Your task to perform on an android device: find which apps use the phone's location Image 0: 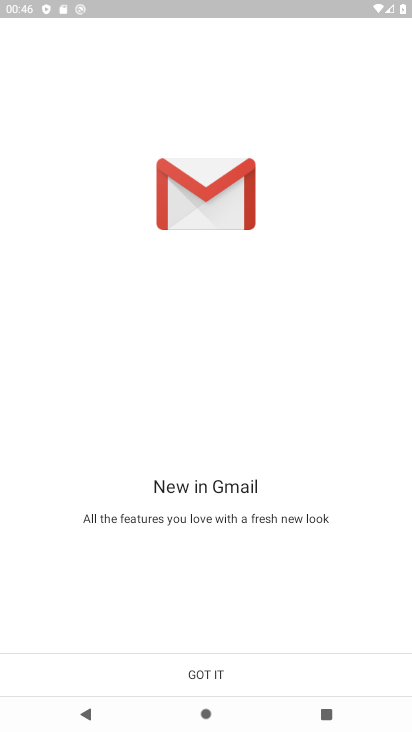
Step 0: press home button
Your task to perform on an android device: find which apps use the phone's location Image 1: 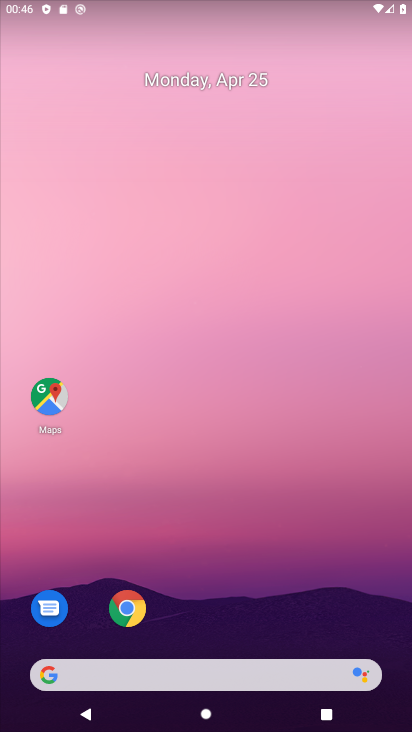
Step 1: drag from (253, 605) to (250, 141)
Your task to perform on an android device: find which apps use the phone's location Image 2: 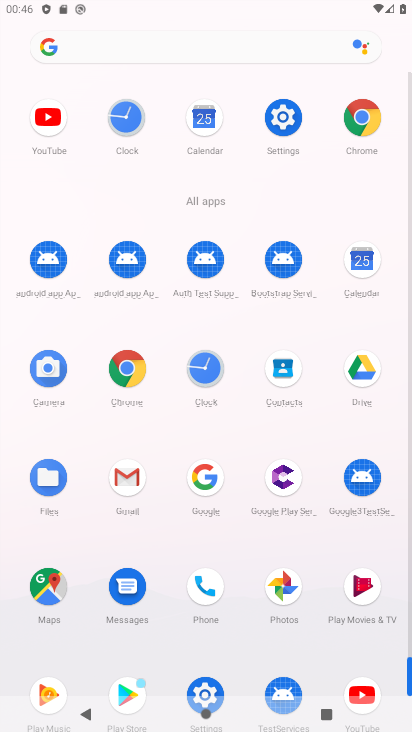
Step 2: click (284, 131)
Your task to perform on an android device: find which apps use the phone's location Image 3: 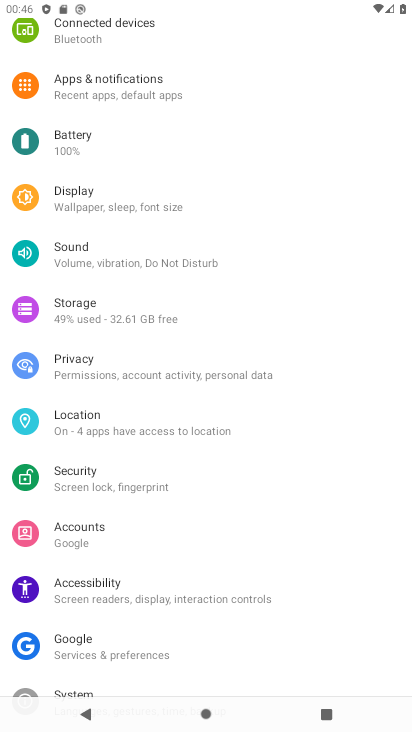
Step 3: click (204, 422)
Your task to perform on an android device: find which apps use the phone's location Image 4: 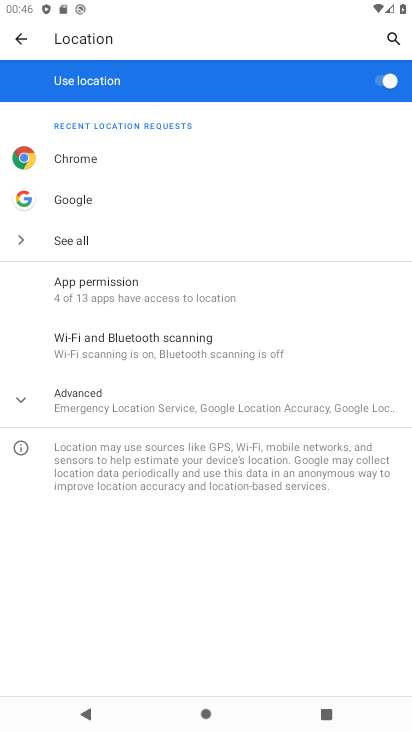
Step 4: click (195, 291)
Your task to perform on an android device: find which apps use the phone's location Image 5: 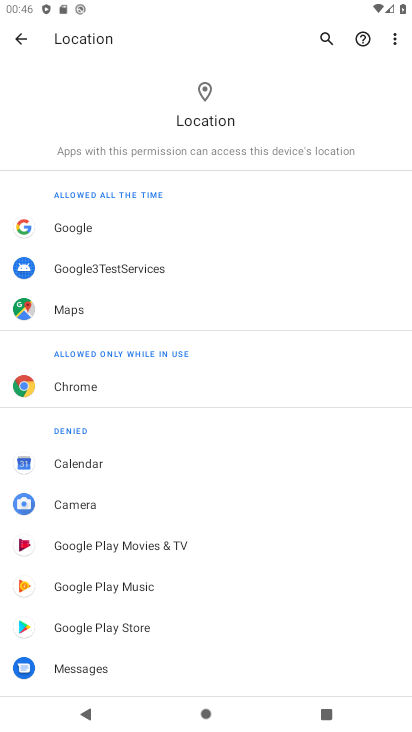
Step 5: task complete